Your task to perform on an android device: Turn on the flashlight Image 0: 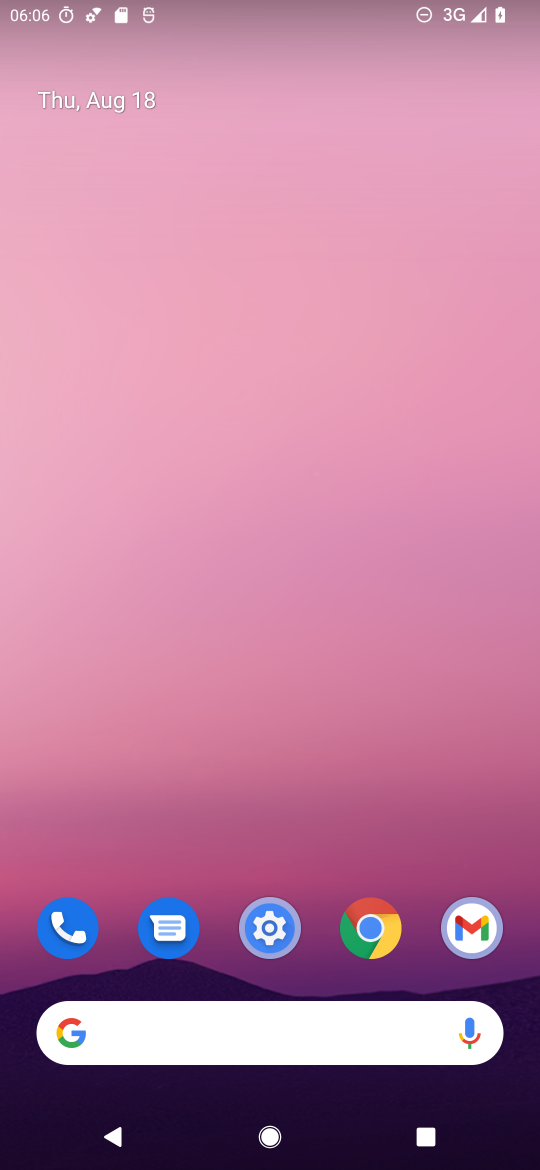
Step 0: drag from (317, 854) to (404, 33)
Your task to perform on an android device: Turn on the flashlight Image 1: 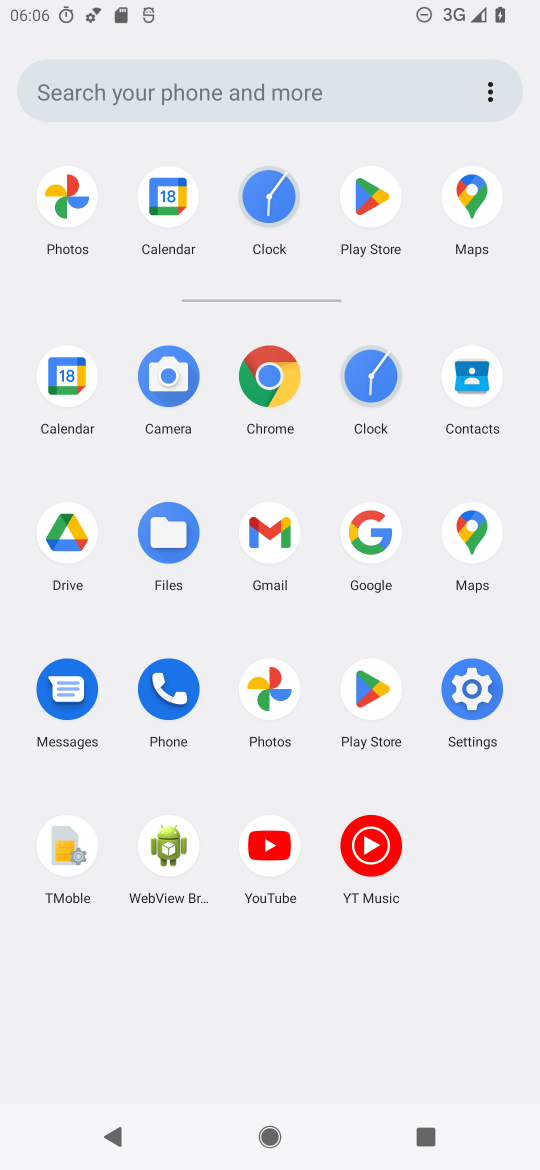
Step 1: click (492, 685)
Your task to perform on an android device: Turn on the flashlight Image 2: 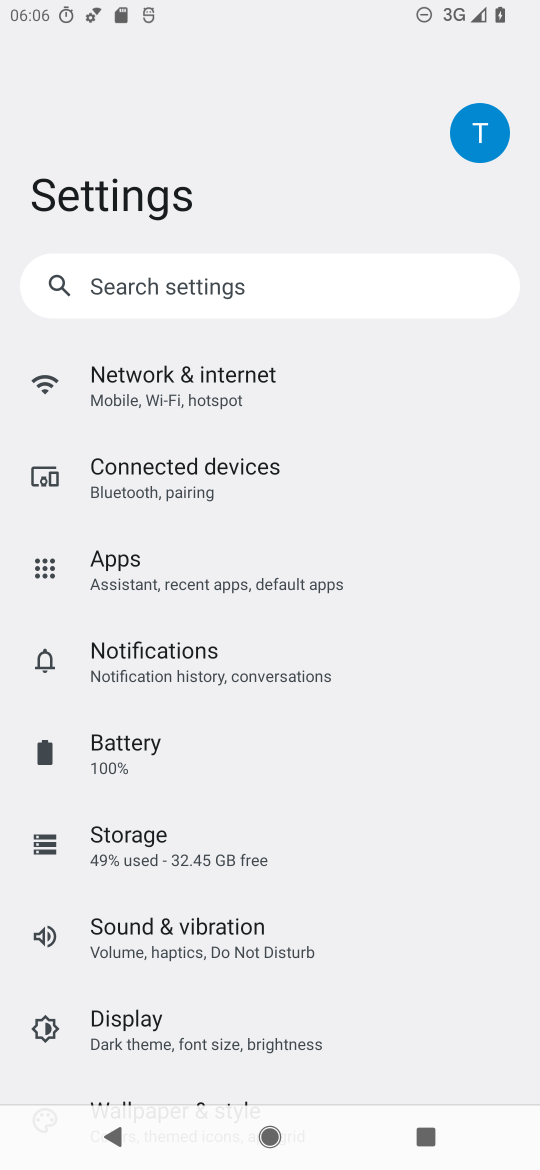
Step 2: click (143, 1025)
Your task to perform on an android device: Turn on the flashlight Image 3: 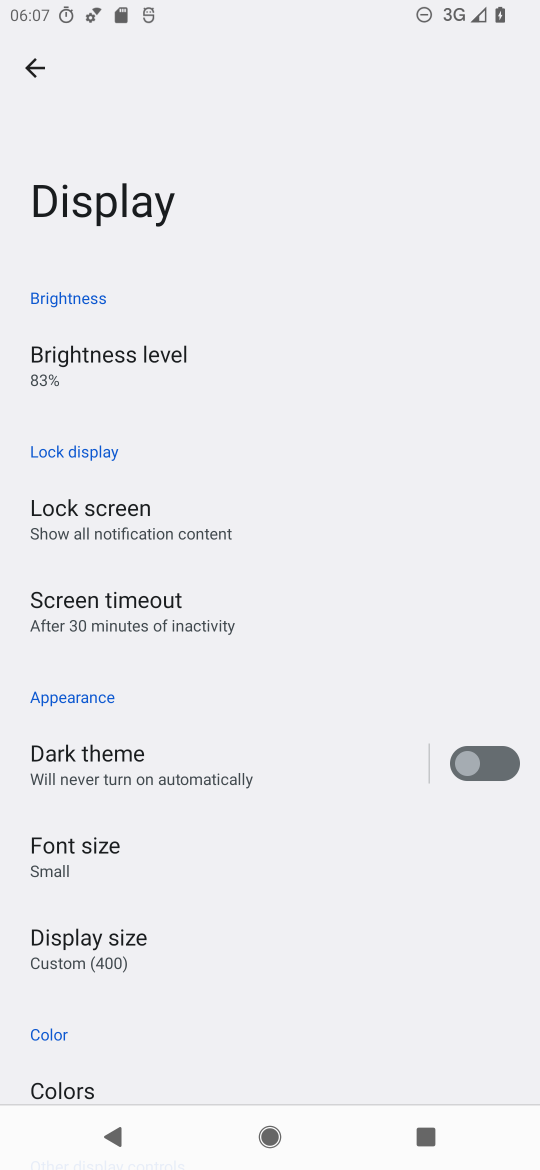
Step 3: task complete